Your task to perform on an android device: Turn on the flashlight Image 0: 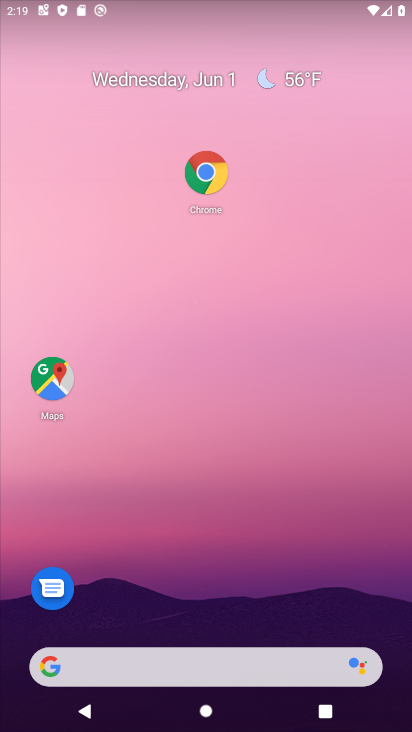
Step 0: drag from (207, 586) to (227, 50)
Your task to perform on an android device: Turn on the flashlight Image 1: 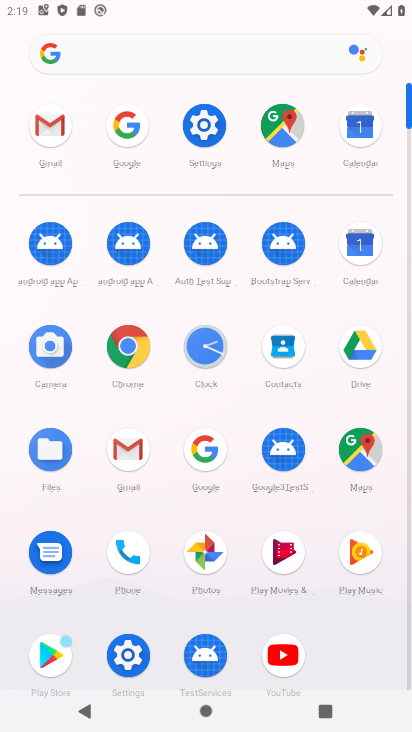
Step 1: click (206, 120)
Your task to perform on an android device: Turn on the flashlight Image 2: 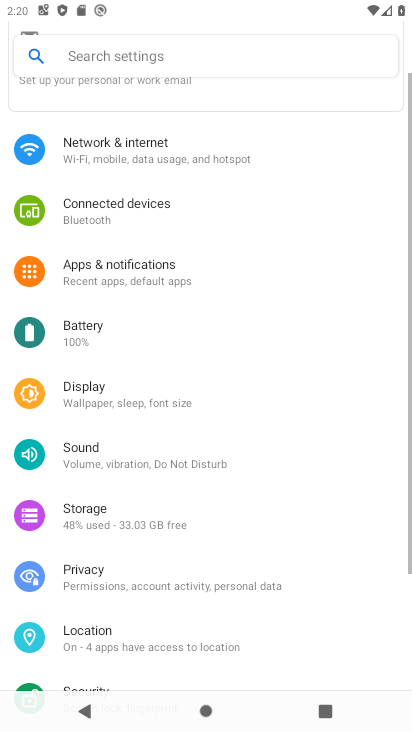
Step 2: click (132, 55)
Your task to perform on an android device: Turn on the flashlight Image 3: 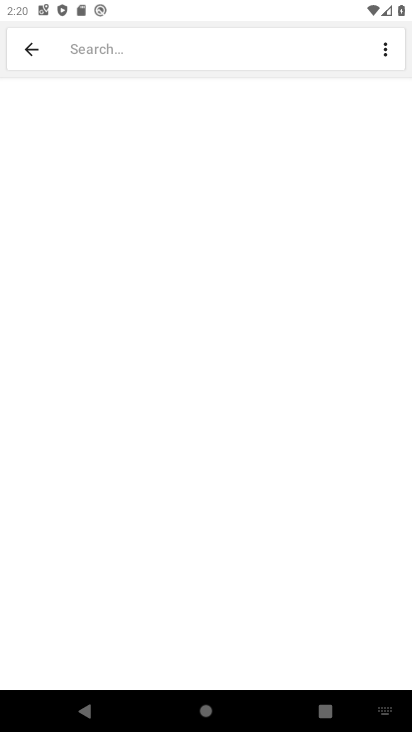
Step 3: type "flash"
Your task to perform on an android device: Turn on the flashlight Image 4: 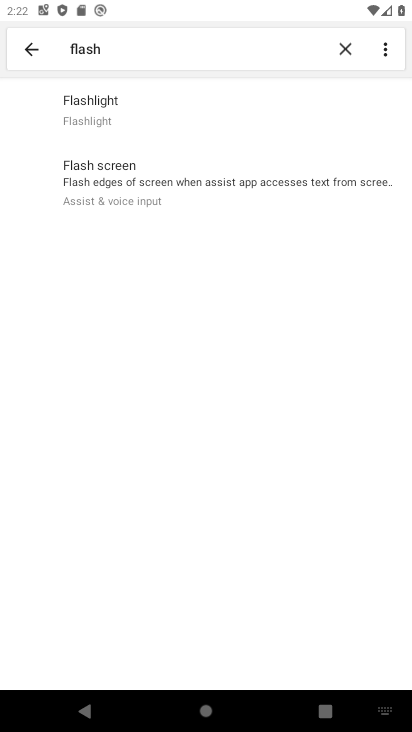
Step 4: task complete